Your task to perform on an android device: install app "Google Chat" Image 0: 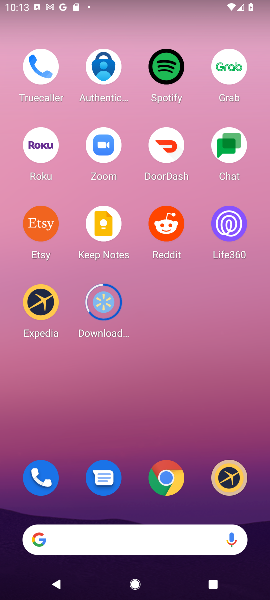
Step 0: drag from (136, 513) to (162, 96)
Your task to perform on an android device: install app "Google Chat" Image 1: 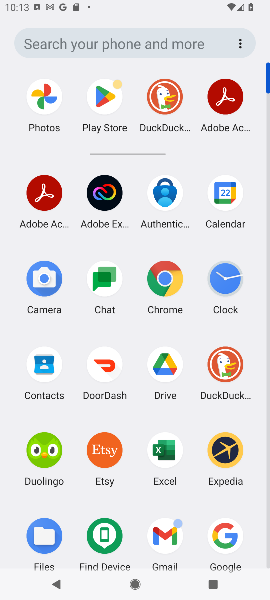
Step 1: click (101, 91)
Your task to perform on an android device: install app "Google Chat" Image 2: 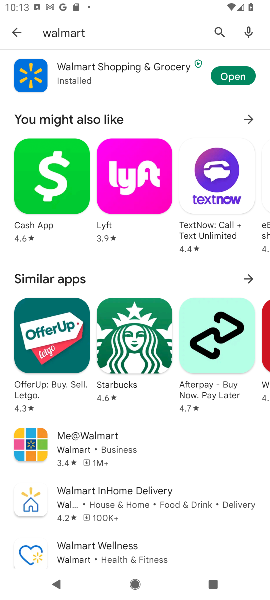
Step 2: click (215, 26)
Your task to perform on an android device: install app "Google Chat" Image 3: 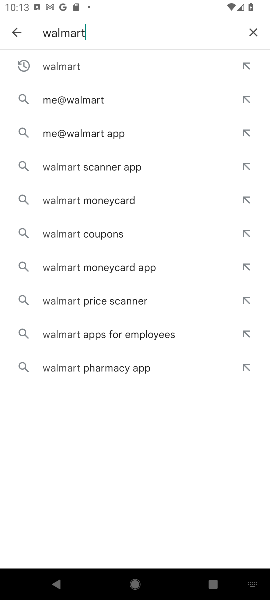
Step 3: click (250, 29)
Your task to perform on an android device: install app "Google Chat" Image 4: 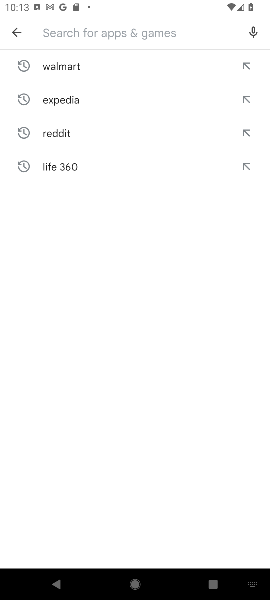
Step 4: type "google chat"
Your task to perform on an android device: install app "Google Chat" Image 5: 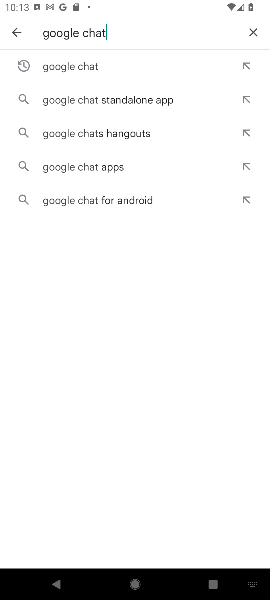
Step 5: click (75, 74)
Your task to perform on an android device: install app "Google Chat" Image 6: 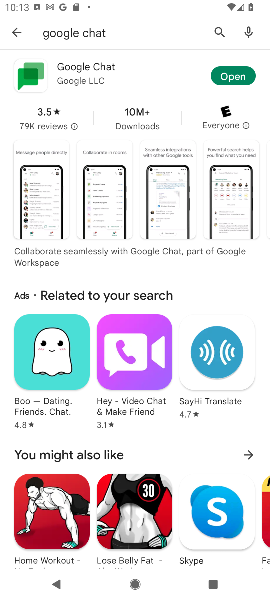
Step 6: click (219, 68)
Your task to perform on an android device: install app "Google Chat" Image 7: 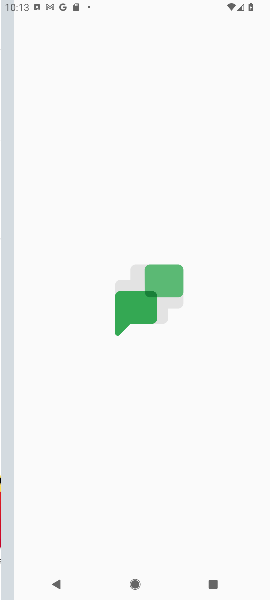
Step 7: task complete